Your task to perform on an android device: Set the phone to "Do not disturb". Image 0: 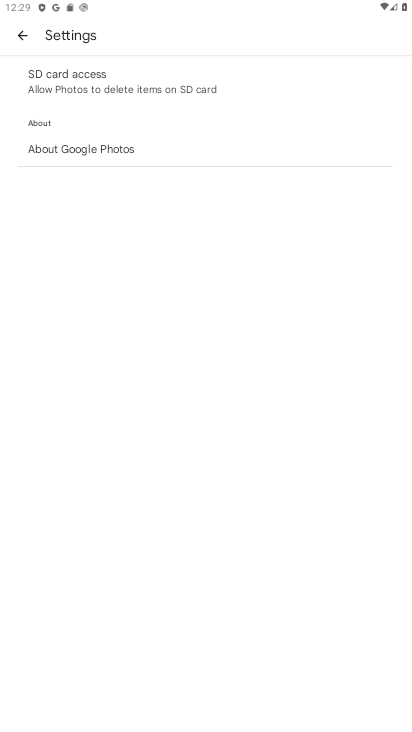
Step 0: press home button
Your task to perform on an android device: Set the phone to "Do not disturb". Image 1: 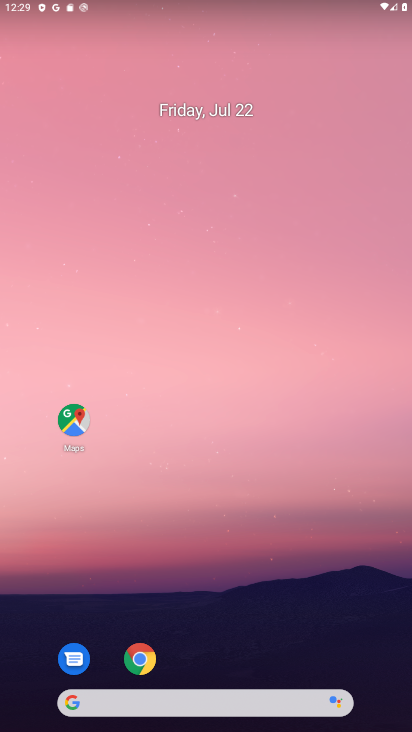
Step 1: drag from (226, 704) to (152, 168)
Your task to perform on an android device: Set the phone to "Do not disturb". Image 2: 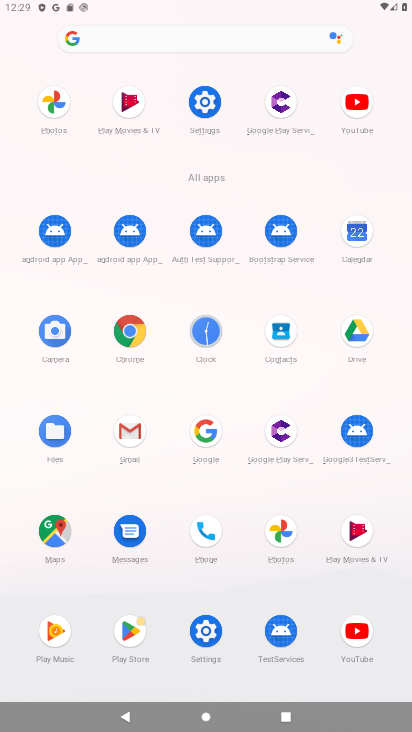
Step 2: click (198, 100)
Your task to perform on an android device: Set the phone to "Do not disturb". Image 3: 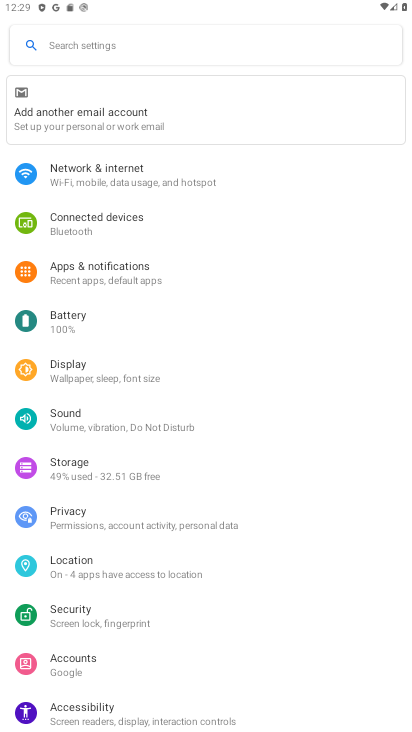
Step 3: click (92, 45)
Your task to perform on an android device: Set the phone to "Do not disturb". Image 4: 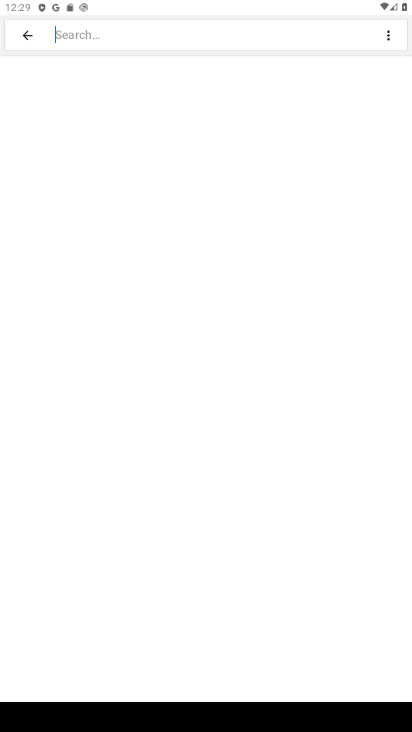
Step 4: drag from (371, 731) to (358, 584)
Your task to perform on an android device: Set the phone to "Do not disturb". Image 5: 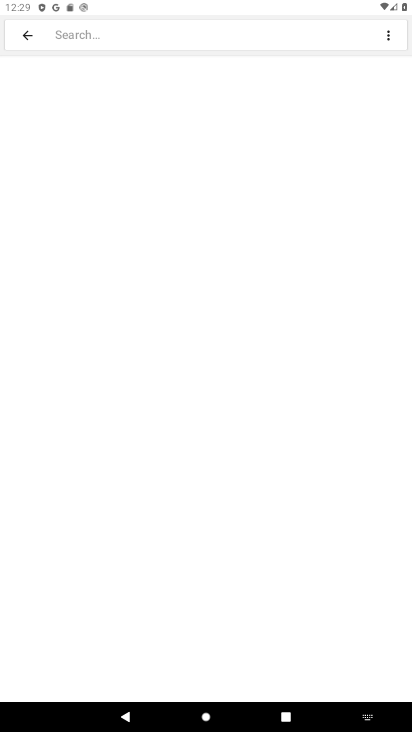
Step 5: click (369, 725)
Your task to perform on an android device: Set the phone to "Do not disturb". Image 6: 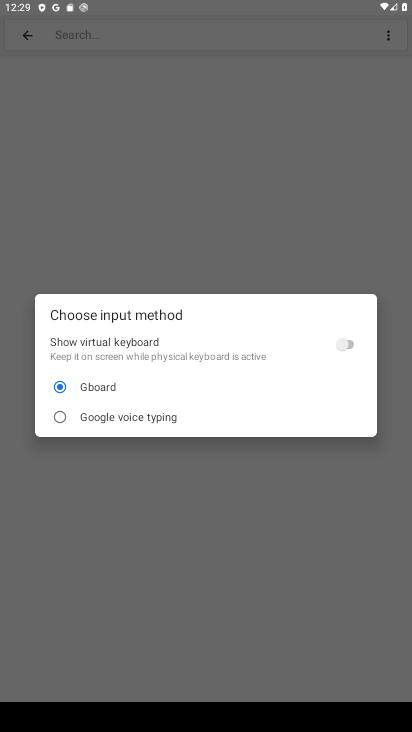
Step 6: click (347, 343)
Your task to perform on an android device: Set the phone to "Do not disturb". Image 7: 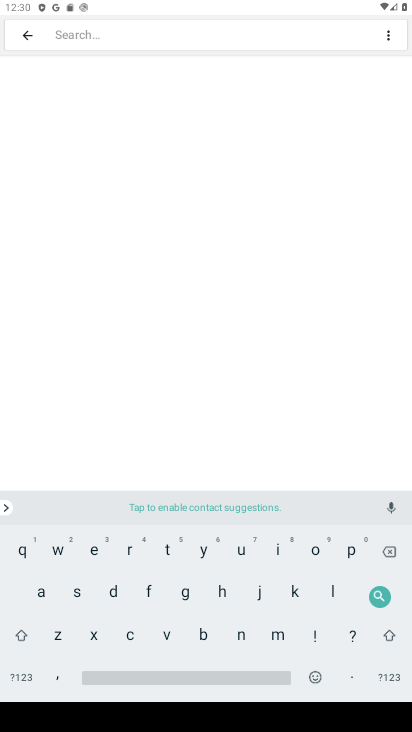
Step 7: click (111, 591)
Your task to perform on an android device: Set the phone to "Do not disturb". Image 8: 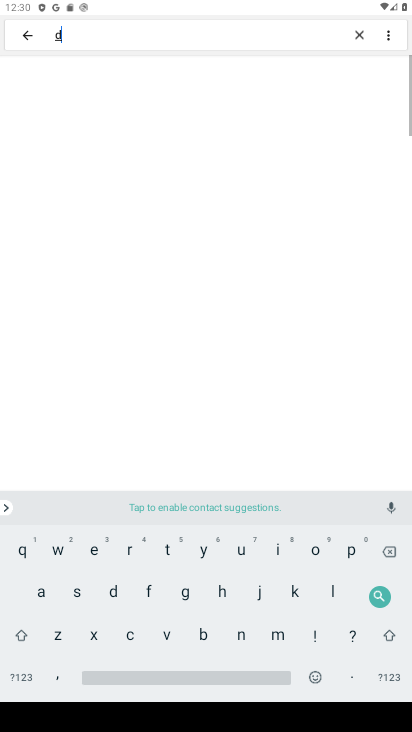
Step 8: click (243, 637)
Your task to perform on an android device: Set the phone to "Do not disturb". Image 9: 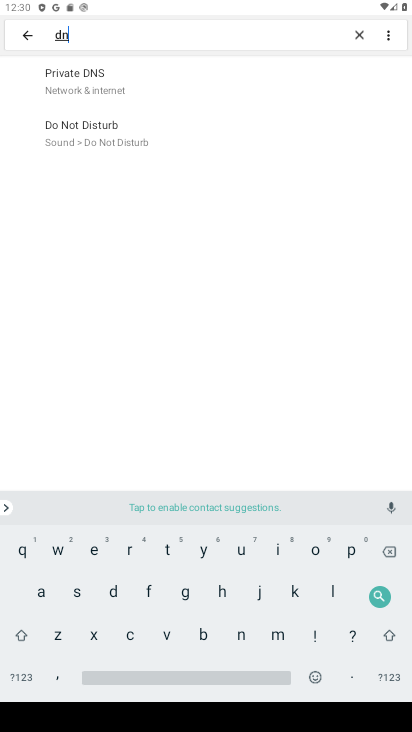
Step 9: click (117, 591)
Your task to perform on an android device: Set the phone to "Do not disturb". Image 10: 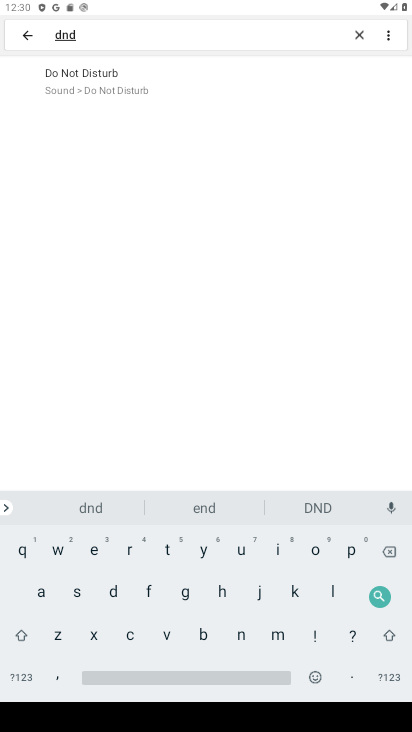
Step 10: click (131, 76)
Your task to perform on an android device: Set the phone to "Do not disturb". Image 11: 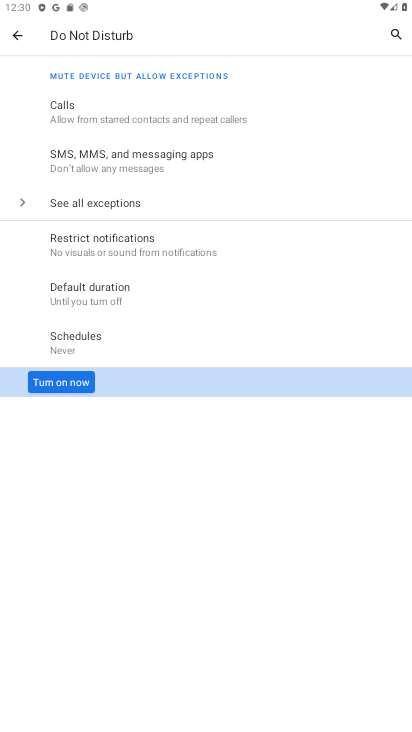
Step 11: click (72, 394)
Your task to perform on an android device: Set the phone to "Do not disturb". Image 12: 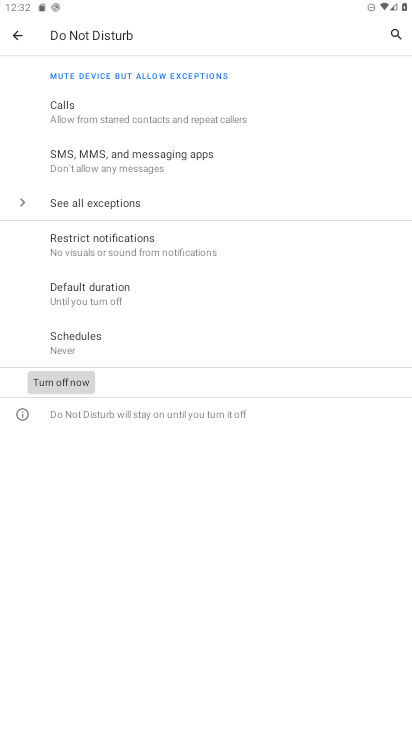
Step 12: task complete